Your task to perform on an android device: Open Yahoo.com Image 0: 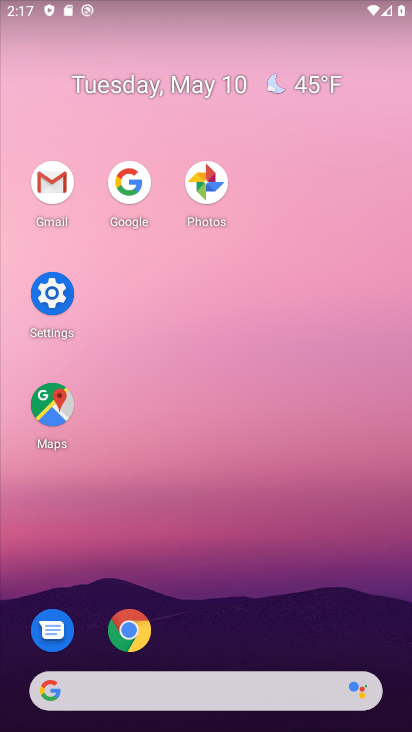
Step 0: click (129, 636)
Your task to perform on an android device: Open Yahoo.com Image 1: 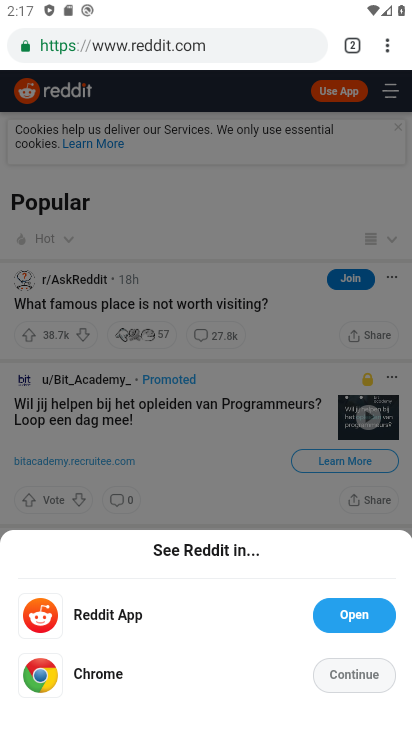
Step 1: click (347, 45)
Your task to perform on an android device: Open Yahoo.com Image 2: 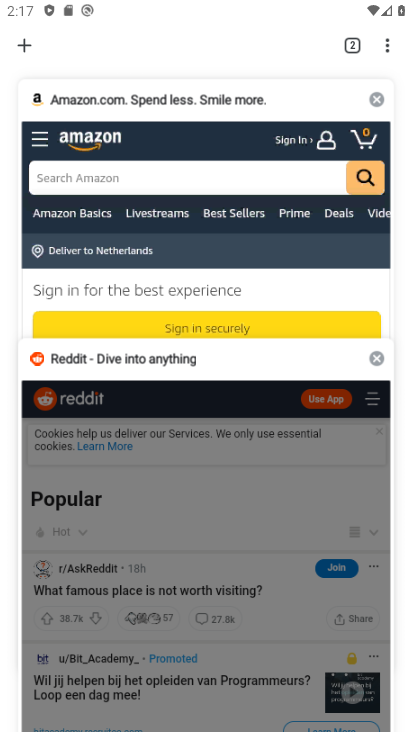
Step 2: click (30, 46)
Your task to perform on an android device: Open Yahoo.com Image 3: 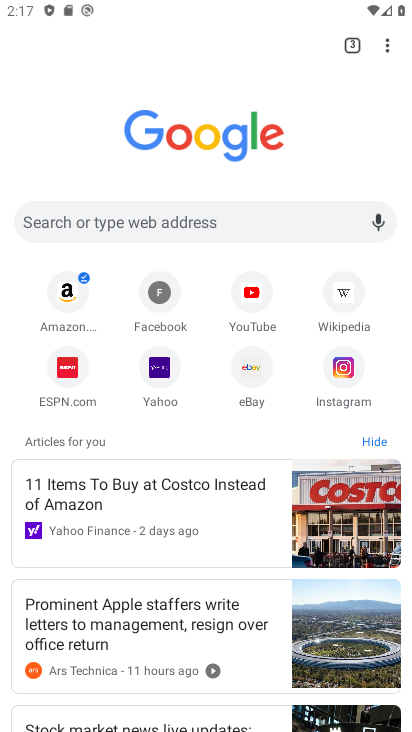
Step 3: click (159, 377)
Your task to perform on an android device: Open Yahoo.com Image 4: 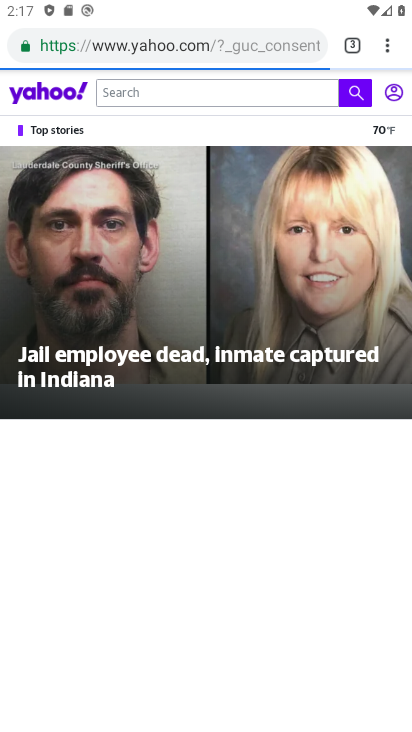
Step 4: task complete